Your task to perform on an android device: Go to wifi settings Image 0: 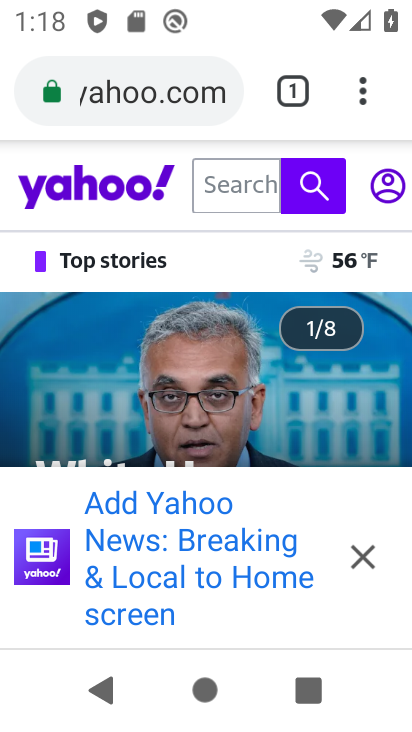
Step 0: press home button
Your task to perform on an android device: Go to wifi settings Image 1: 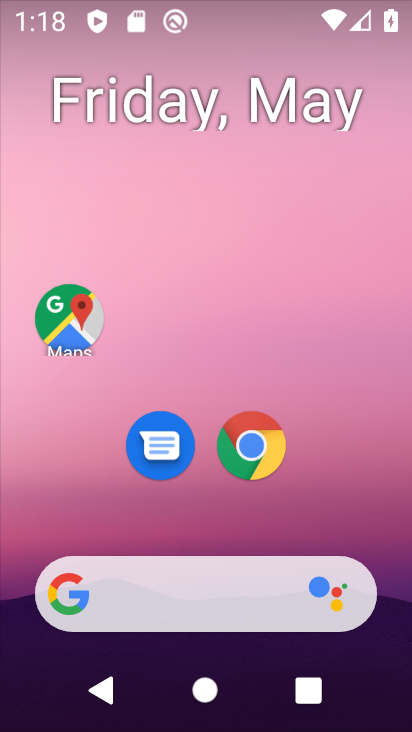
Step 1: drag from (395, 596) to (348, 98)
Your task to perform on an android device: Go to wifi settings Image 2: 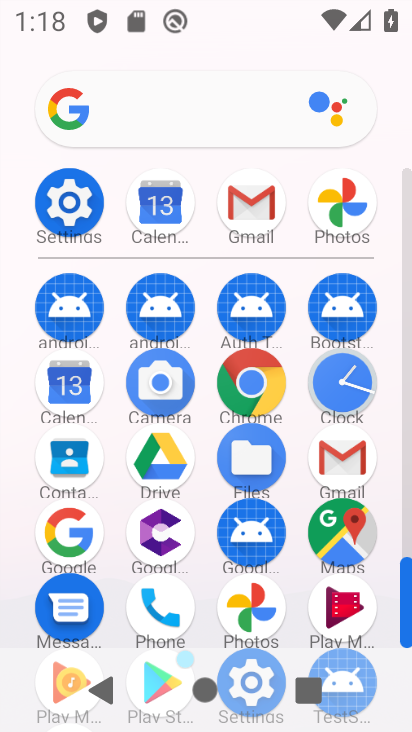
Step 2: click (405, 547)
Your task to perform on an android device: Go to wifi settings Image 3: 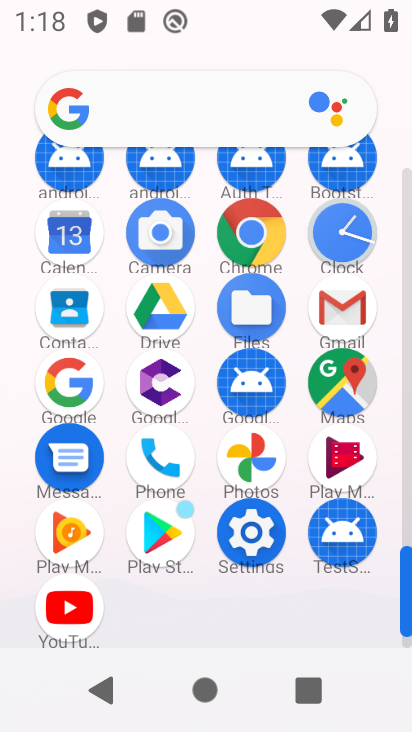
Step 3: click (249, 536)
Your task to perform on an android device: Go to wifi settings Image 4: 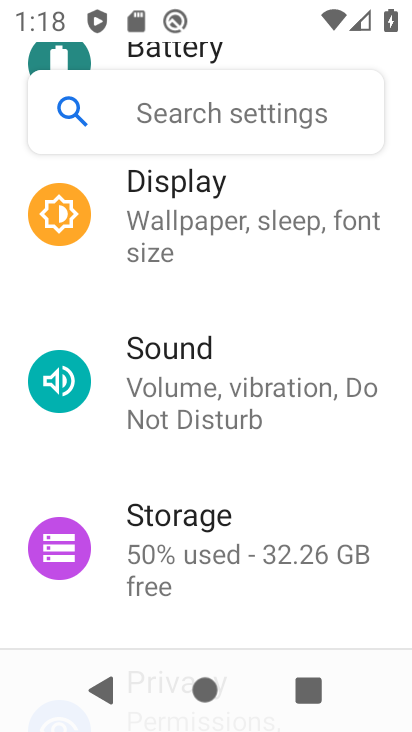
Step 4: drag from (342, 207) to (317, 624)
Your task to perform on an android device: Go to wifi settings Image 5: 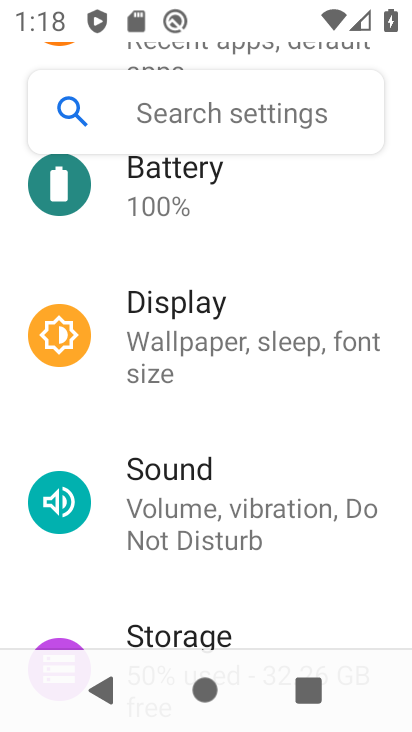
Step 5: drag from (362, 224) to (317, 531)
Your task to perform on an android device: Go to wifi settings Image 6: 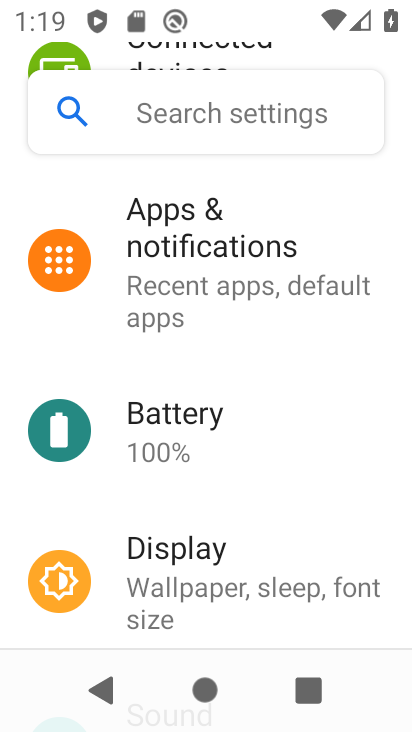
Step 6: drag from (346, 253) to (324, 559)
Your task to perform on an android device: Go to wifi settings Image 7: 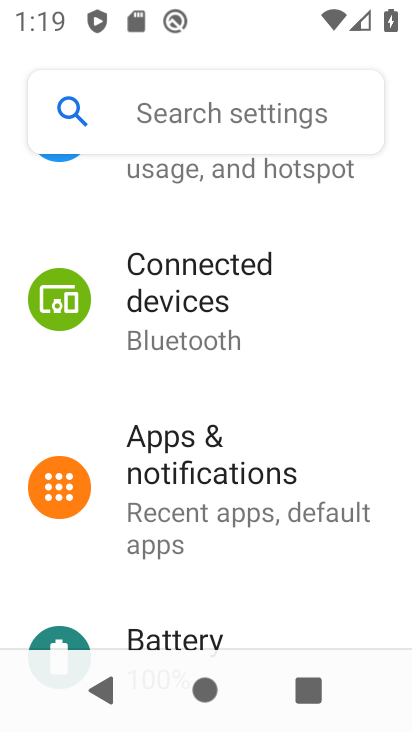
Step 7: drag from (323, 234) to (317, 530)
Your task to perform on an android device: Go to wifi settings Image 8: 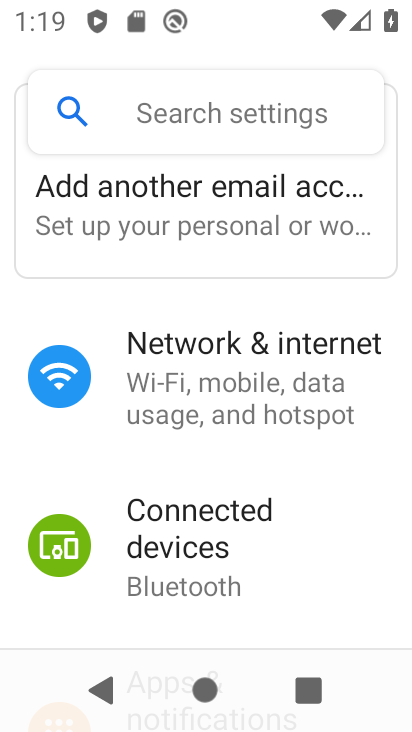
Step 8: click (196, 359)
Your task to perform on an android device: Go to wifi settings Image 9: 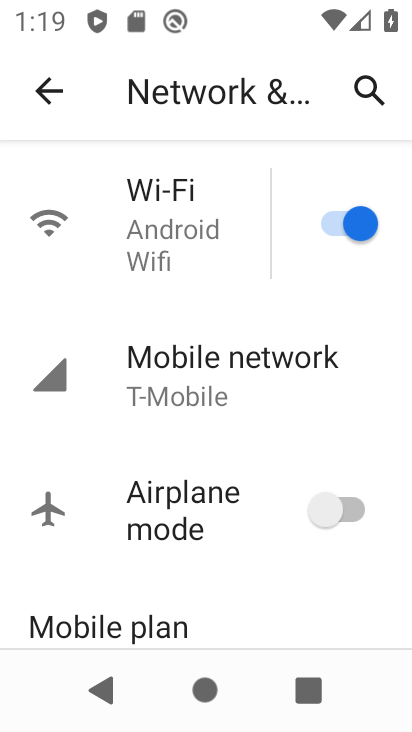
Step 9: click (183, 226)
Your task to perform on an android device: Go to wifi settings Image 10: 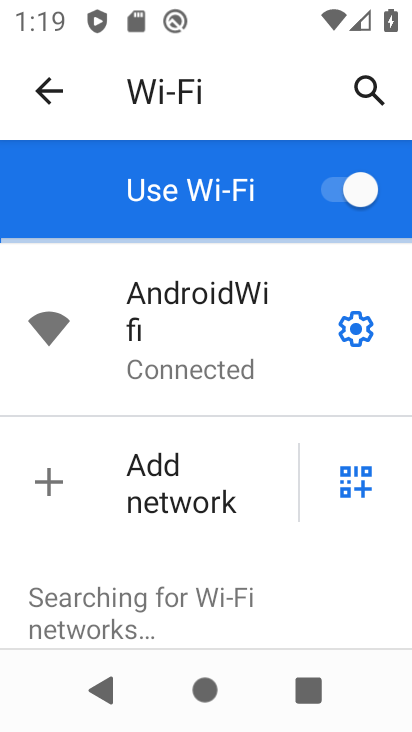
Step 10: drag from (204, 557) to (234, 174)
Your task to perform on an android device: Go to wifi settings Image 11: 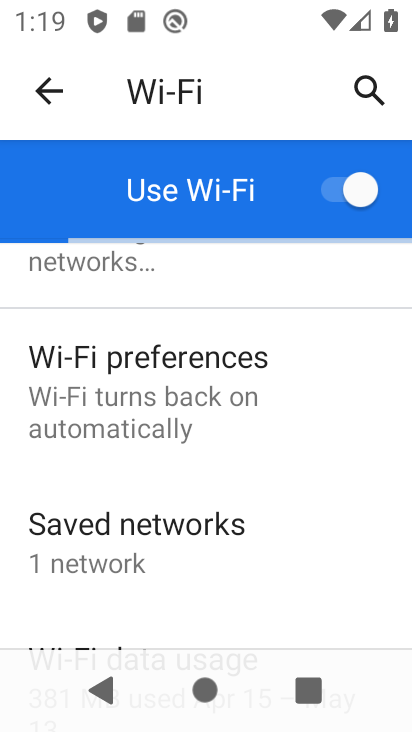
Step 11: drag from (221, 515) to (249, 572)
Your task to perform on an android device: Go to wifi settings Image 12: 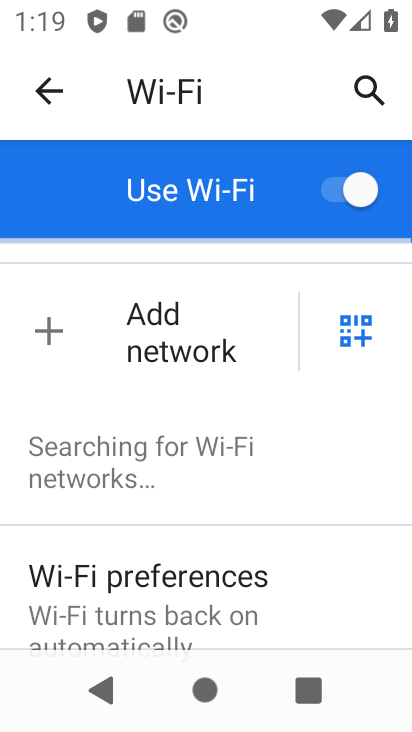
Step 12: drag from (285, 337) to (276, 602)
Your task to perform on an android device: Go to wifi settings Image 13: 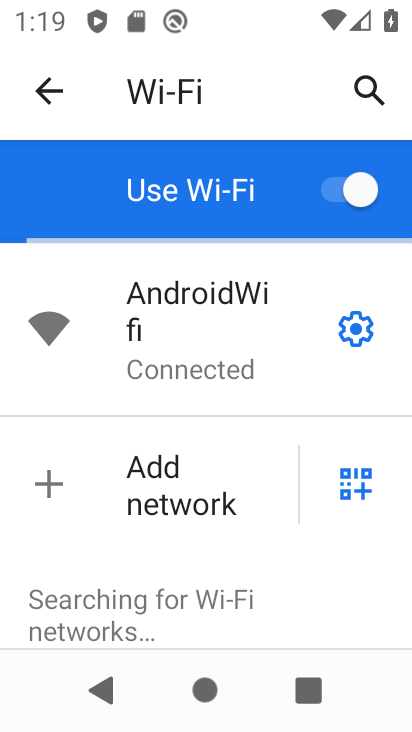
Step 13: click (354, 331)
Your task to perform on an android device: Go to wifi settings Image 14: 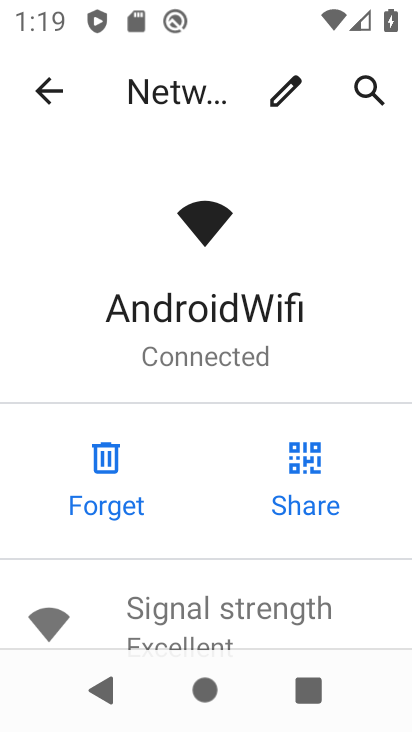
Step 14: drag from (253, 593) to (246, 135)
Your task to perform on an android device: Go to wifi settings Image 15: 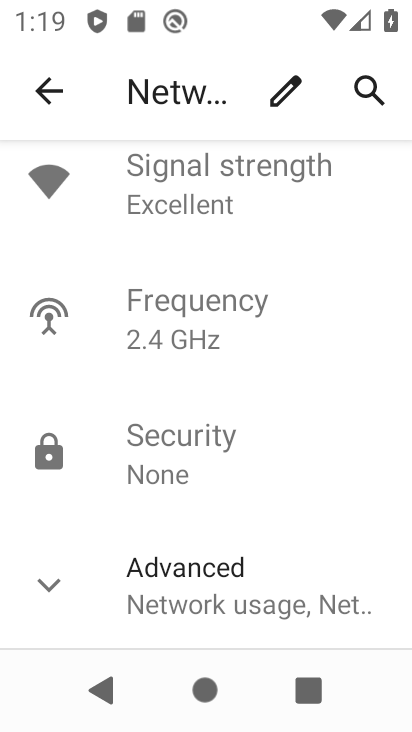
Step 15: click (56, 589)
Your task to perform on an android device: Go to wifi settings Image 16: 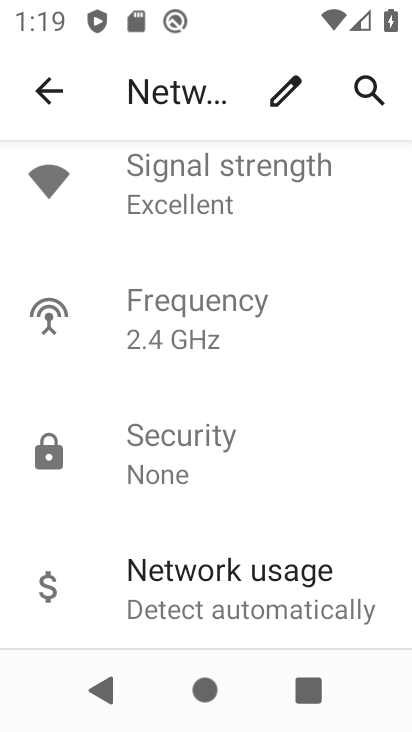
Step 16: task complete